Your task to perform on an android device: Open Chrome and go to settings Image 0: 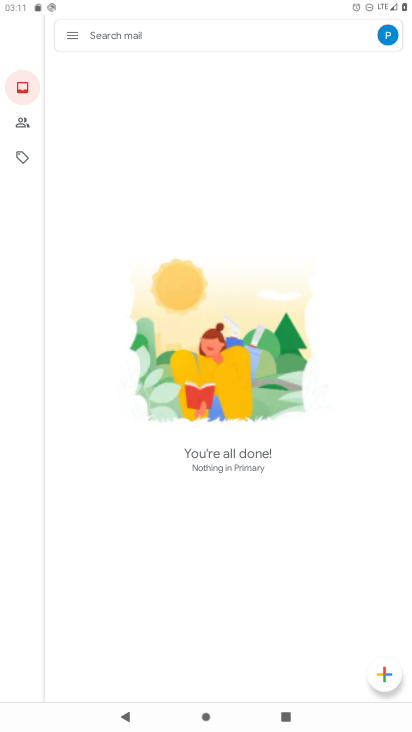
Step 0: press home button
Your task to perform on an android device: Open Chrome and go to settings Image 1: 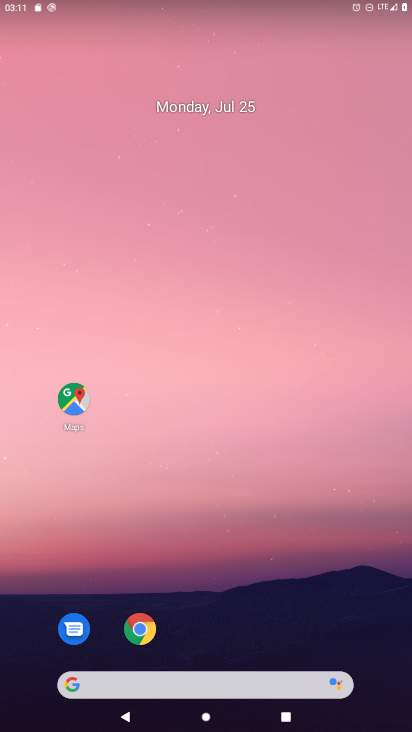
Step 1: drag from (274, 626) to (330, 74)
Your task to perform on an android device: Open Chrome and go to settings Image 2: 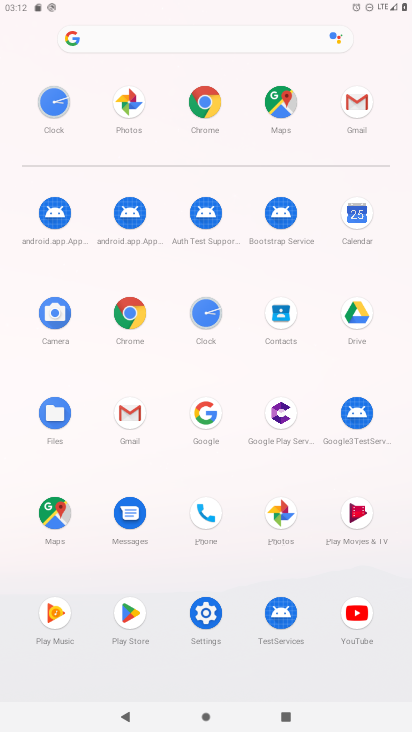
Step 2: click (116, 311)
Your task to perform on an android device: Open Chrome and go to settings Image 3: 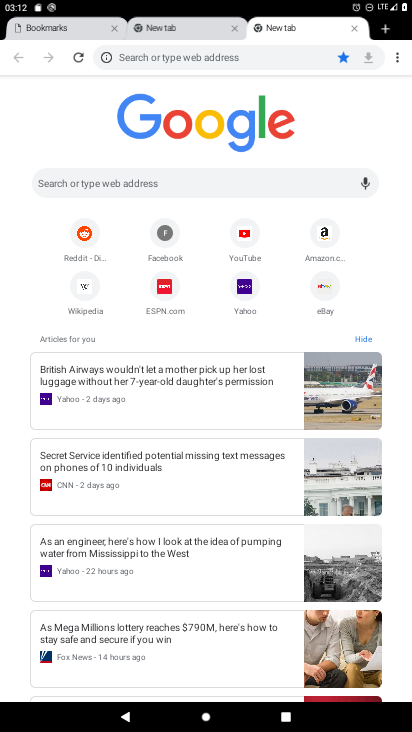
Step 3: task complete